Your task to perform on an android device: delete location history Image 0: 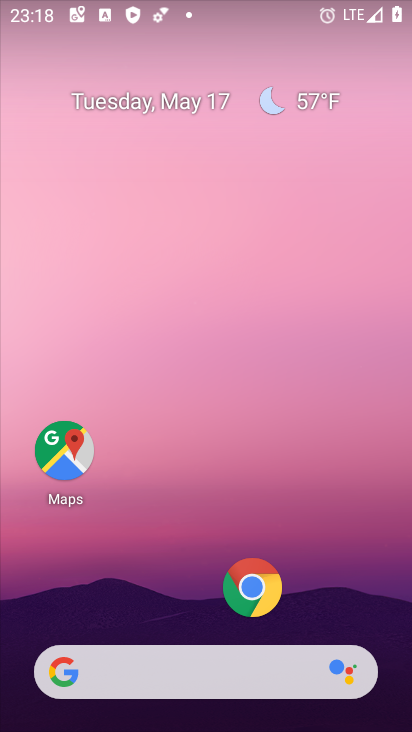
Step 0: drag from (68, 559) to (274, 132)
Your task to perform on an android device: delete location history Image 1: 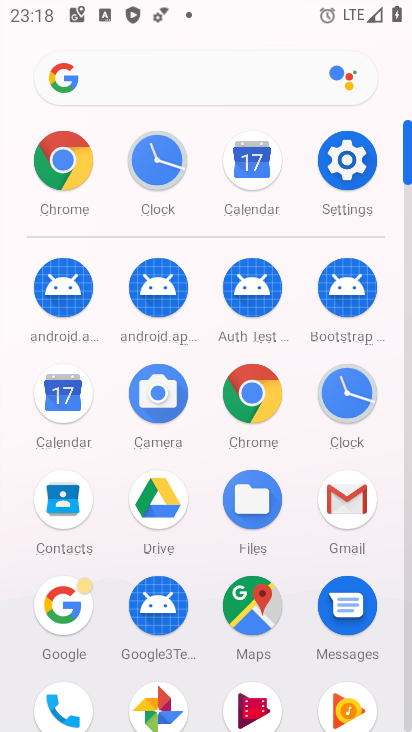
Step 1: click (355, 164)
Your task to perform on an android device: delete location history Image 2: 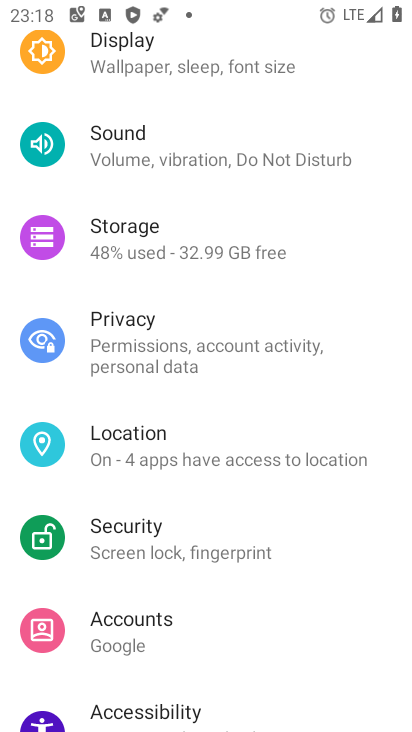
Step 2: click (171, 460)
Your task to perform on an android device: delete location history Image 3: 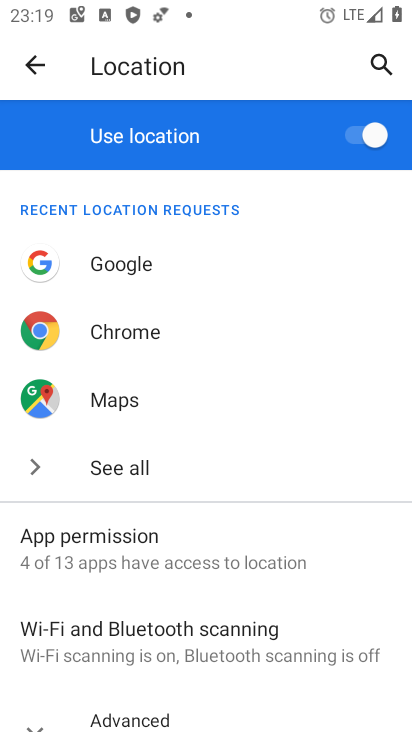
Step 3: drag from (10, 487) to (184, 100)
Your task to perform on an android device: delete location history Image 4: 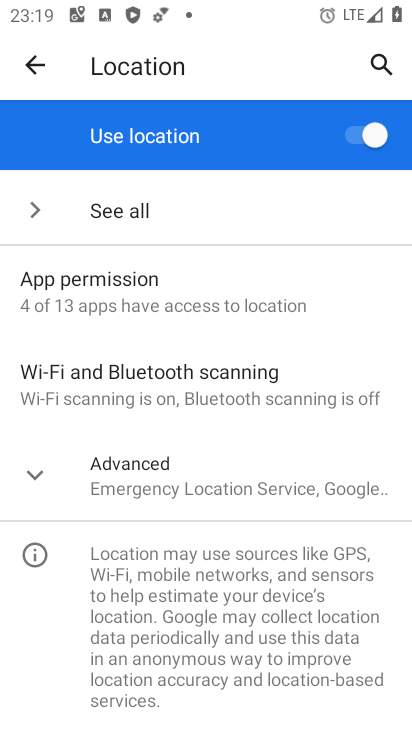
Step 4: click (199, 478)
Your task to perform on an android device: delete location history Image 5: 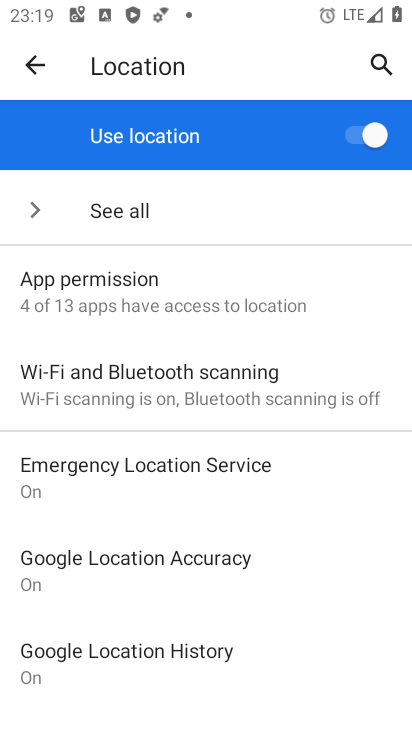
Step 5: drag from (33, 465) to (148, 283)
Your task to perform on an android device: delete location history Image 6: 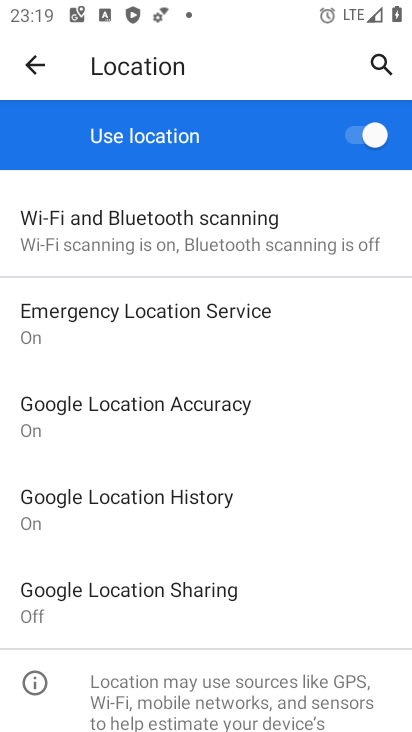
Step 6: click (76, 504)
Your task to perform on an android device: delete location history Image 7: 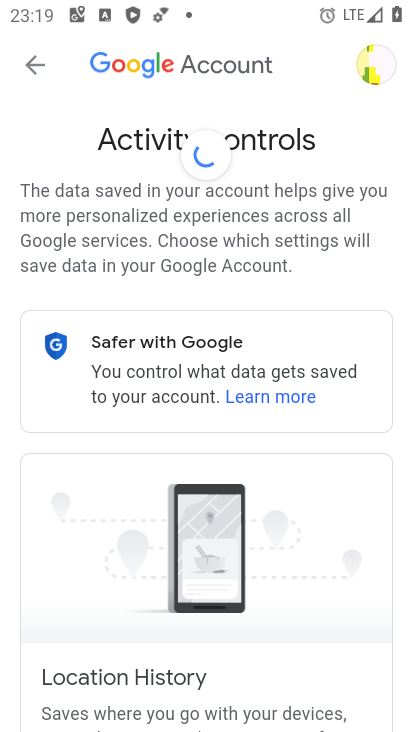
Step 7: drag from (33, 464) to (250, 105)
Your task to perform on an android device: delete location history Image 8: 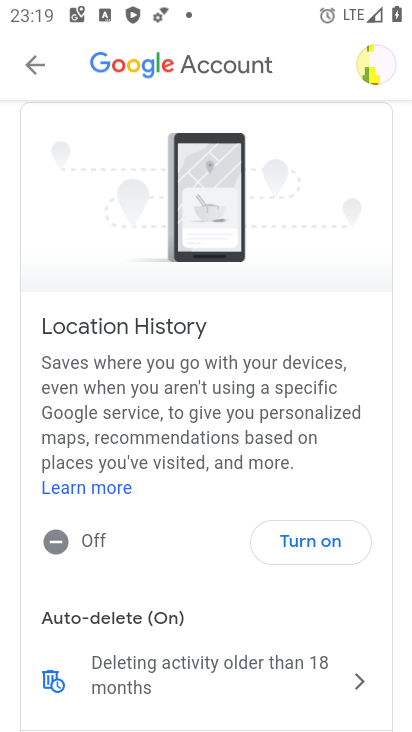
Step 8: drag from (12, 623) to (214, 193)
Your task to perform on an android device: delete location history Image 9: 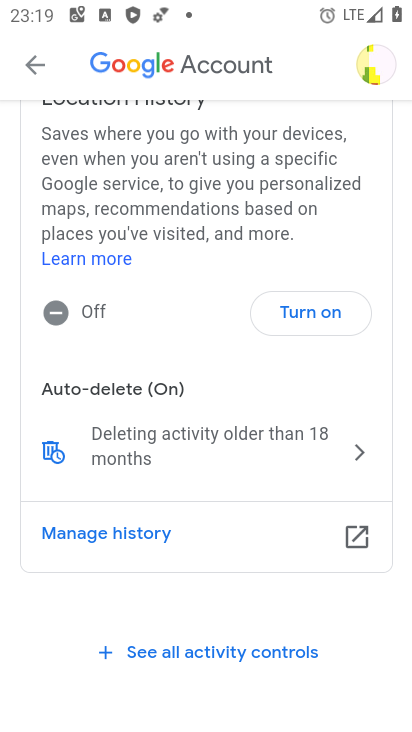
Step 9: click (218, 443)
Your task to perform on an android device: delete location history Image 10: 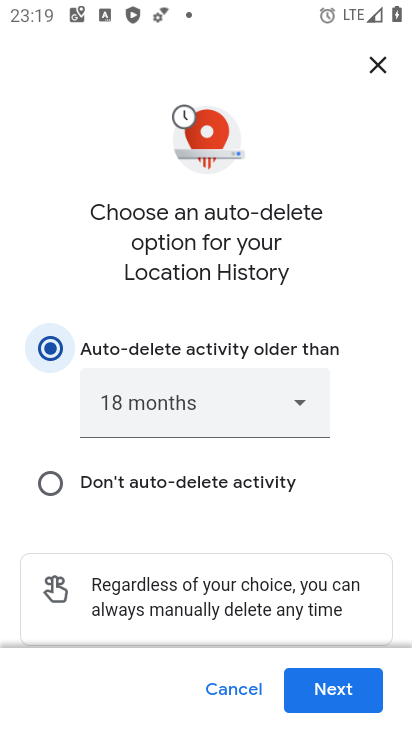
Step 10: click (371, 700)
Your task to perform on an android device: delete location history Image 11: 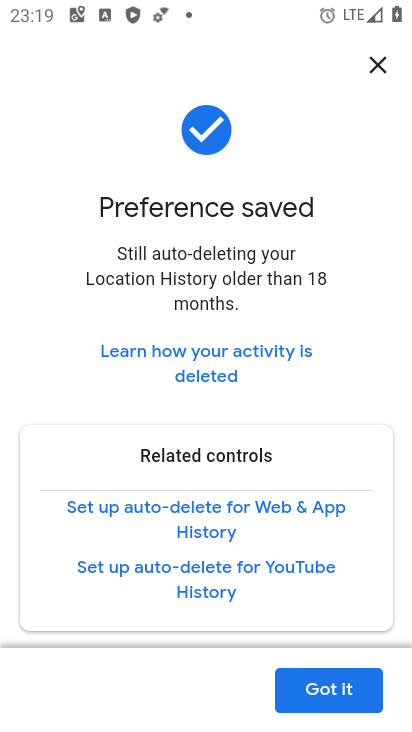
Step 11: task complete